Your task to perform on an android device: toggle notifications settings in the gmail app Image 0: 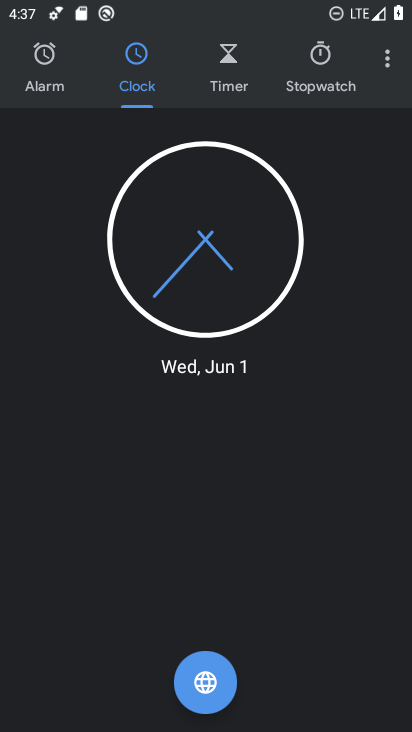
Step 0: press home button
Your task to perform on an android device: toggle notifications settings in the gmail app Image 1: 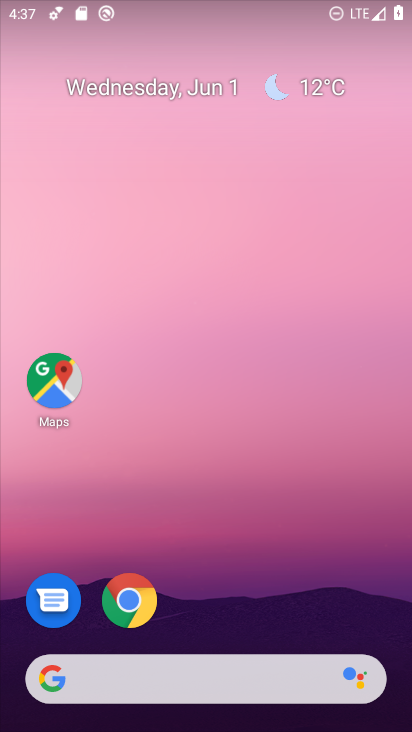
Step 1: drag from (387, 627) to (304, 95)
Your task to perform on an android device: toggle notifications settings in the gmail app Image 2: 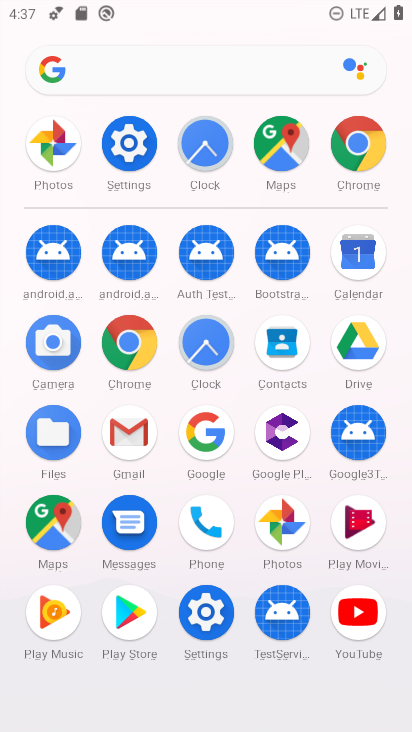
Step 2: click (127, 431)
Your task to perform on an android device: toggle notifications settings in the gmail app Image 3: 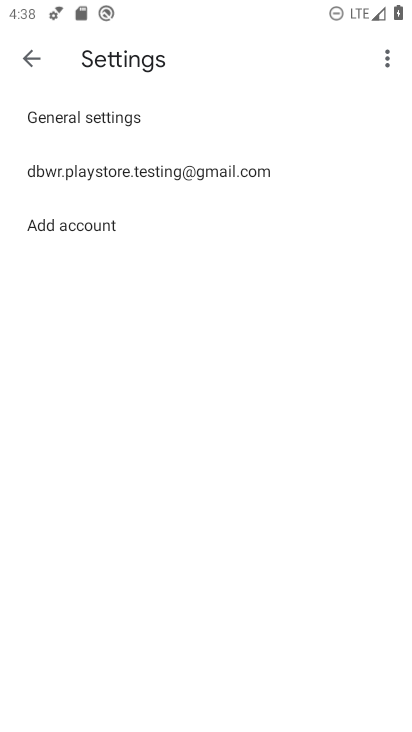
Step 3: click (123, 166)
Your task to perform on an android device: toggle notifications settings in the gmail app Image 4: 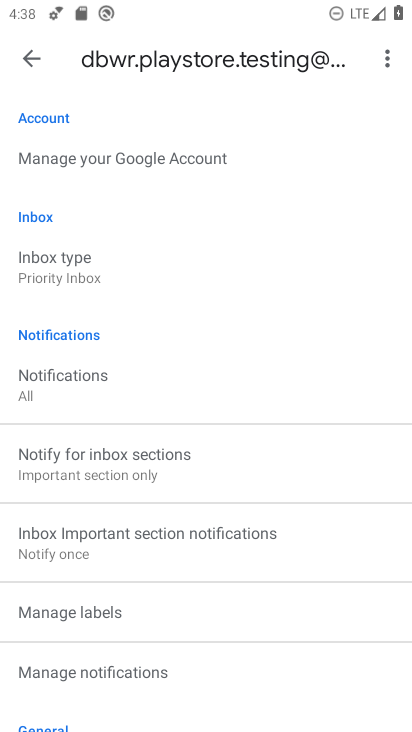
Step 4: click (112, 664)
Your task to perform on an android device: toggle notifications settings in the gmail app Image 5: 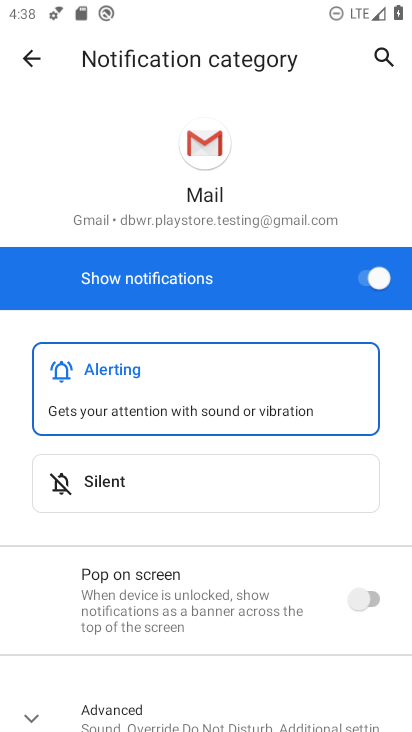
Step 5: click (364, 274)
Your task to perform on an android device: toggle notifications settings in the gmail app Image 6: 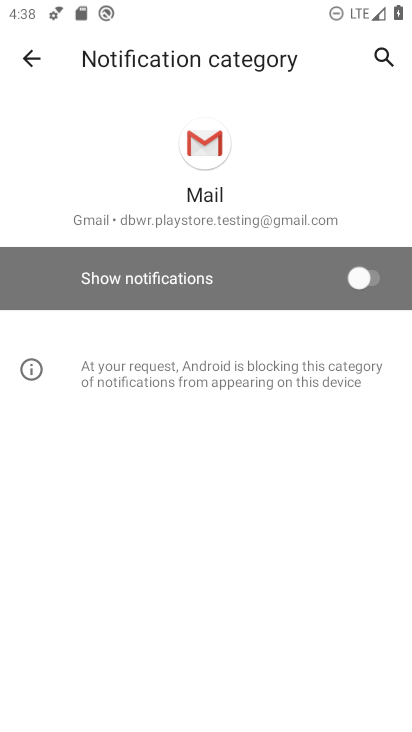
Step 6: task complete